Your task to perform on an android device: open a new tab in the chrome app Image 0: 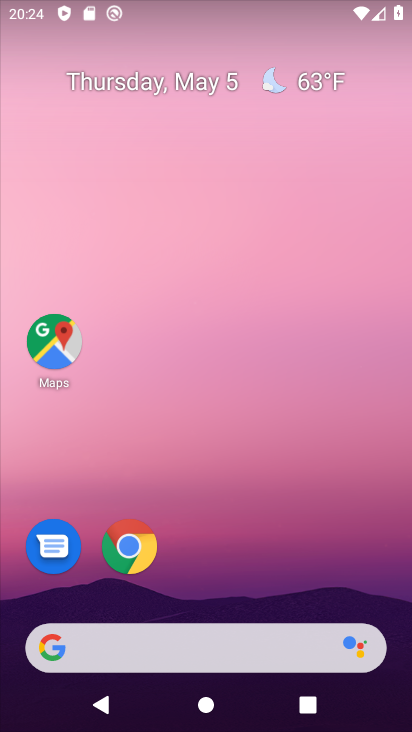
Step 0: drag from (258, 605) to (177, 10)
Your task to perform on an android device: open a new tab in the chrome app Image 1: 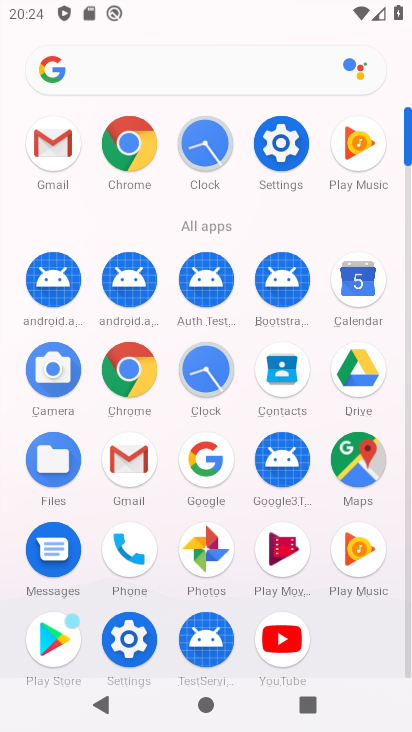
Step 1: click (139, 147)
Your task to perform on an android device: open a new tab in the chrome app Image 2: 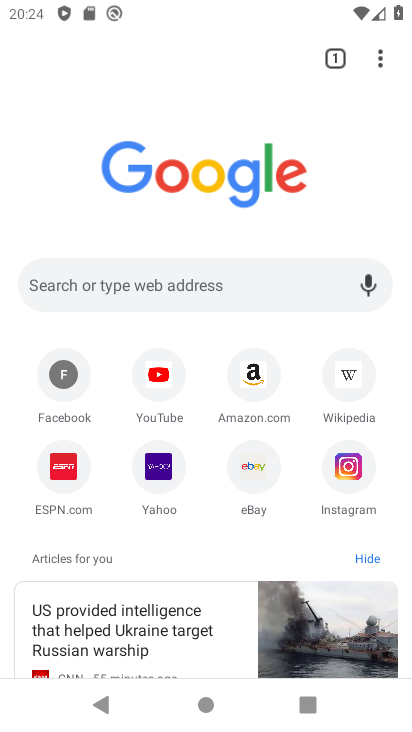
Step 2: click (378, 60)
Your task to perform on an android device: open a new tab in the chrome app Image 3: 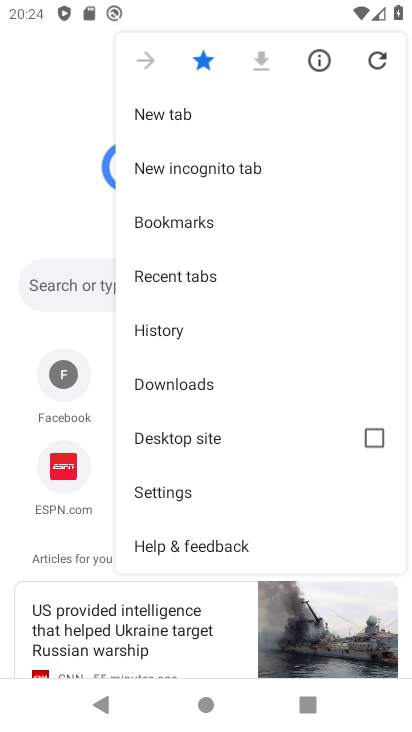
Step 3: click (176, 117)
Your task to perform on an android device: open a new tab in the chrome app Image 4: 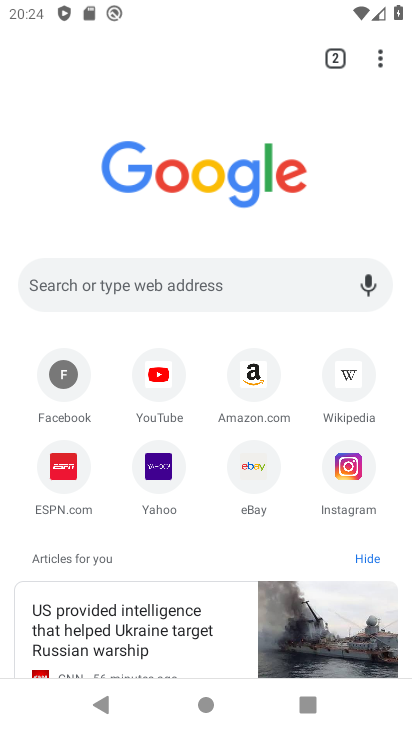
Step 4: click (380, 59)
Your task to perform on an android device: open a new tab in the chrome app Image 5: 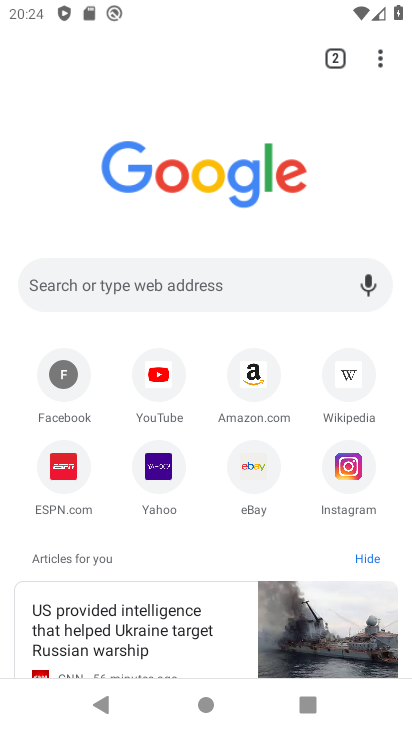
Step 5: click (382, 58)
Your task to perform on an android device: open a new tab in the chrome app Image 6: 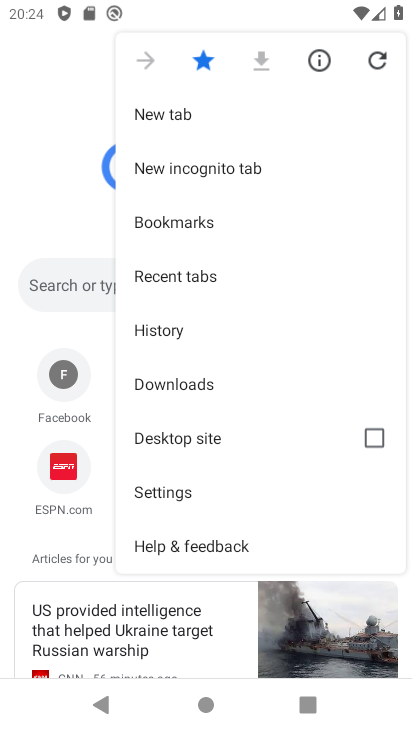
Step 6: click (161, 110)
Your task to perform on an android device: open a new tab in the chrome app Image 7: 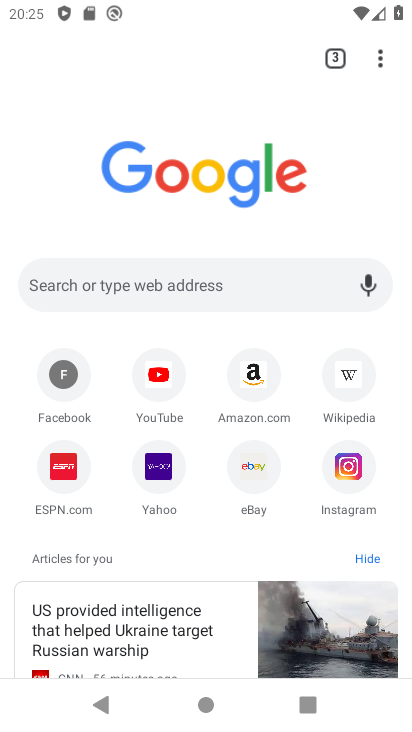
Step 7: click (375, 54)
Your task to perform on an android device: open a new tab in the chrome app Image 8: 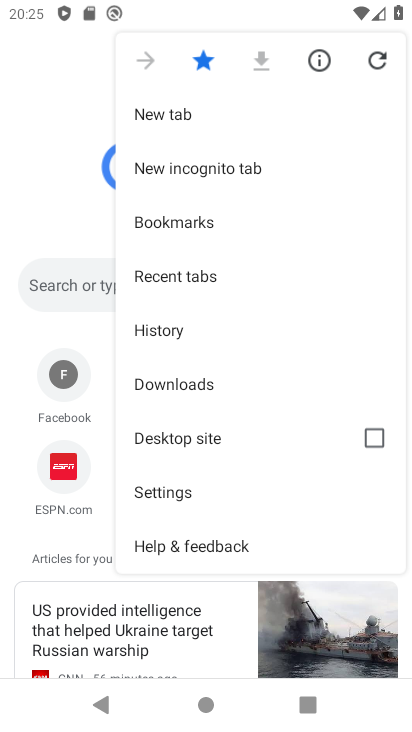
Step 8: click (152, 115)
Your task to perform on an android device: open a new tab in the chrome app Image 9: 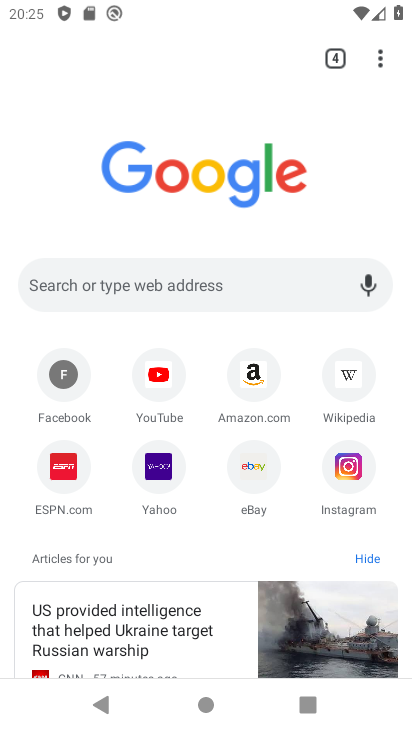
Step 9: task complete